Your task to perform on an android device: Open wifi settings Image 0: 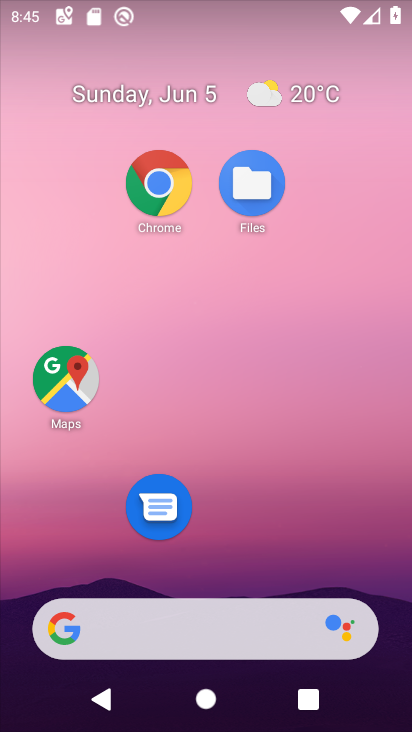
Step 0: drag from (229, 567) to (127, 76)
Your task to perform on an android device: Open wifi settings Image 1: 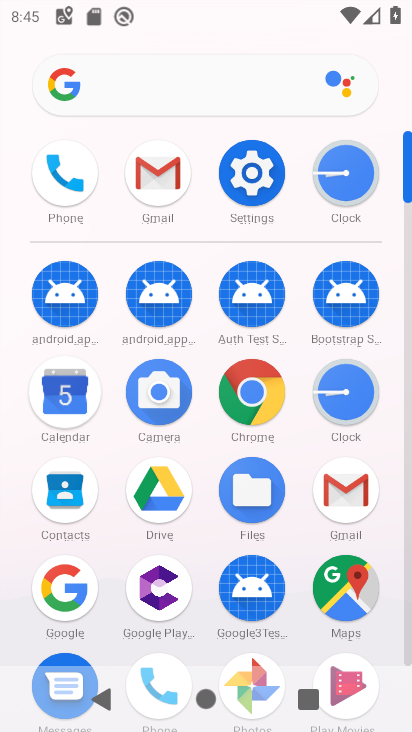
Step 1: click (258, 191)
Your task to perform on an android device: Open wifi settings Image 2: 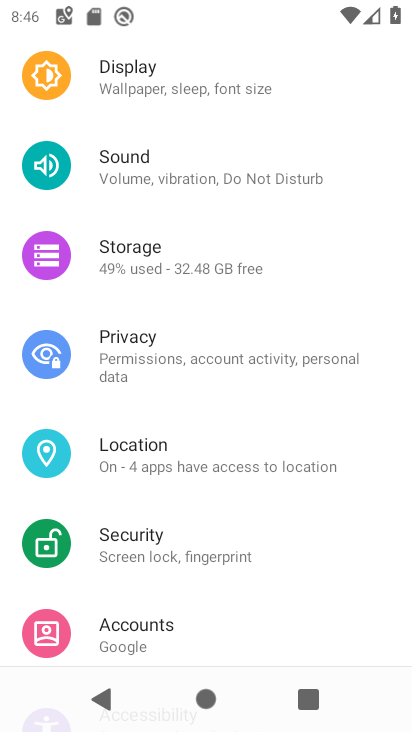
Step 2: drag from (258, 85) to (218, 560)
Your task to perform on an android device: Open wifi settings Image 3: 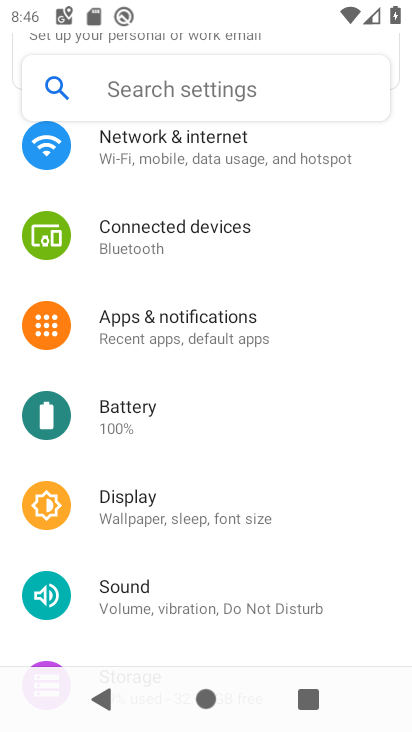
Step 3: click (209, 144)
Your task to perform on an android device: Open wifi settings Image 4: 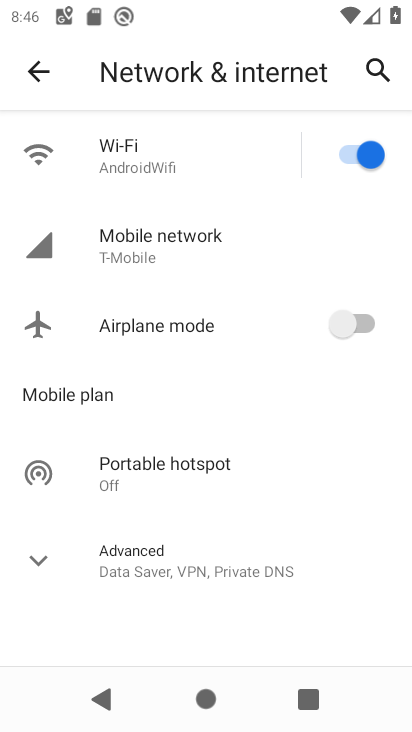
Step 4: click (209, 144)
Your task to perform on an android device: Open wifi settings Image 5: 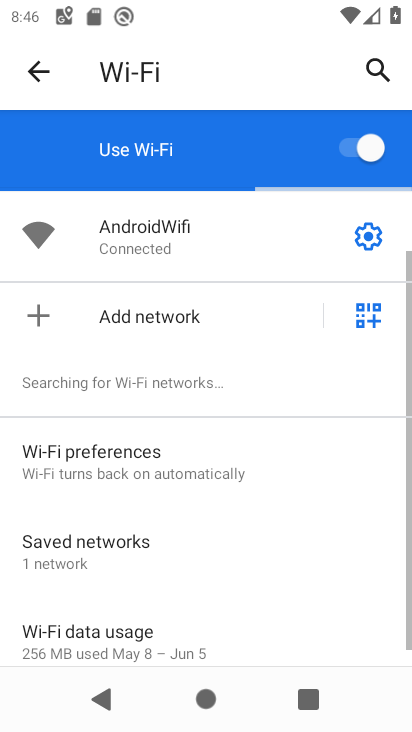
Step 5: task complete